Your task to perform on an android device: Open Amazon Image 0: 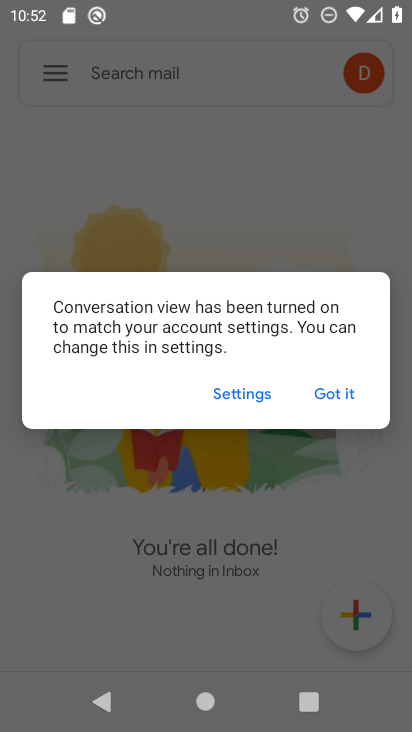
Step 0: press home button
Your task to perform on an android device: Open Amazon Image 1: 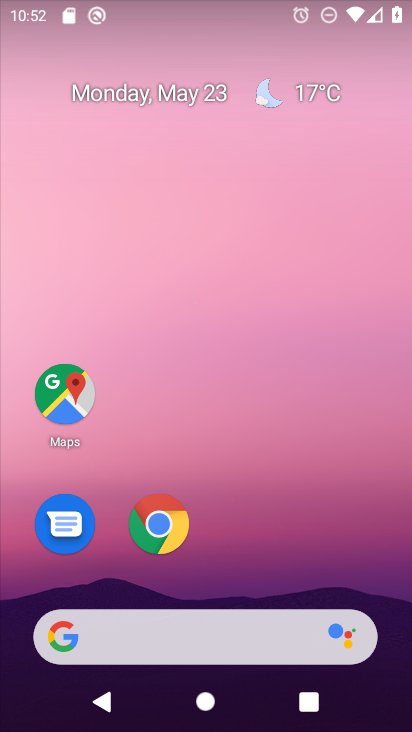
Step 1: click (137, 536)
Your task to perform on an android device: Open Amazon Image 2: 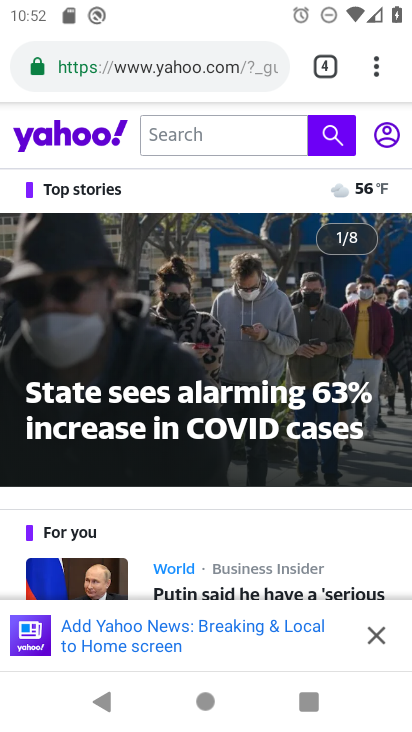
Step 2: click (326, 65)
Your task to perform on an android device: Open Amazon Image 3: 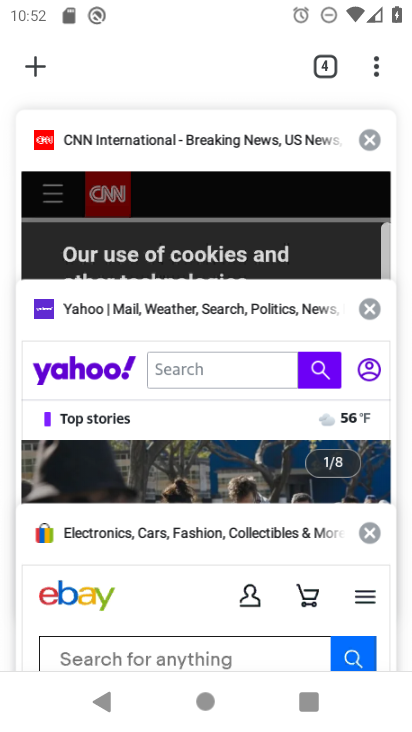
Step 3: click (24, 66)
Your task to perform on an android device: Open Amazon Image 4: 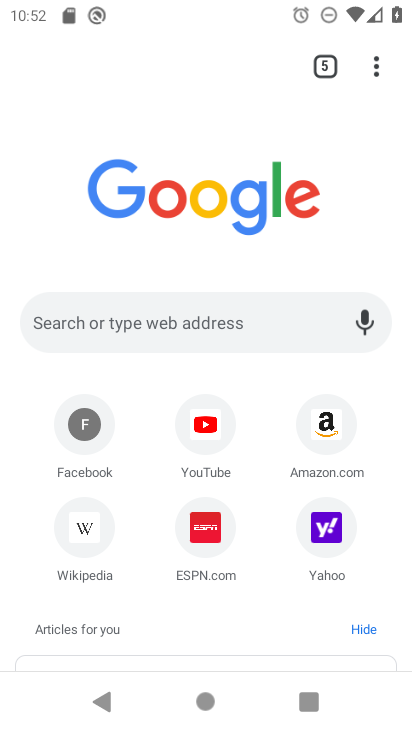
Step 4: click (327, 424)
Your task to perform on an android device: Open Amazon Image 5: 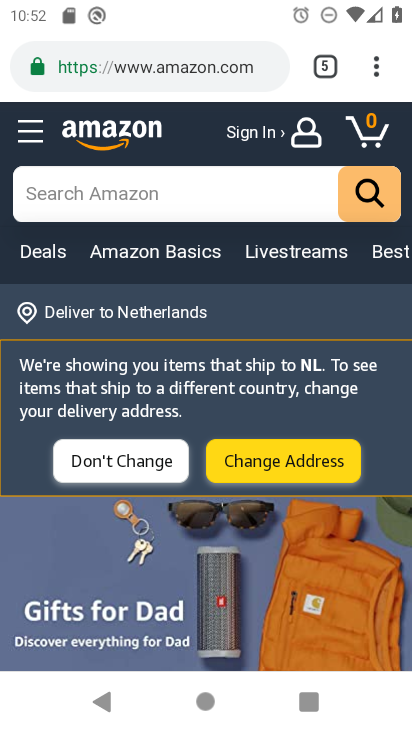
Step 5: task complete